Your task to perform on an android device: Clear the cart on newegg.com. Search for "razer blackwidow" on newegg.com, select the first entry, and add it to the cart. Image 0: 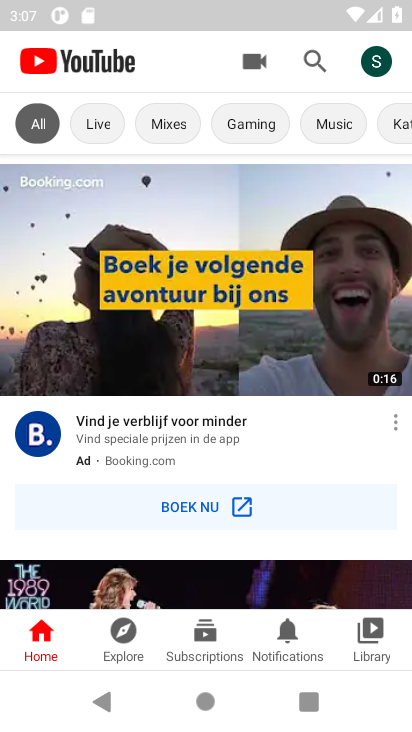
Step 0: press home button
Your task to perform on an android device: Clear the cart on newegg.com. Search for "razer blackwidow" on newegg.com, select the first entry, and add it to the cart. Image 1: 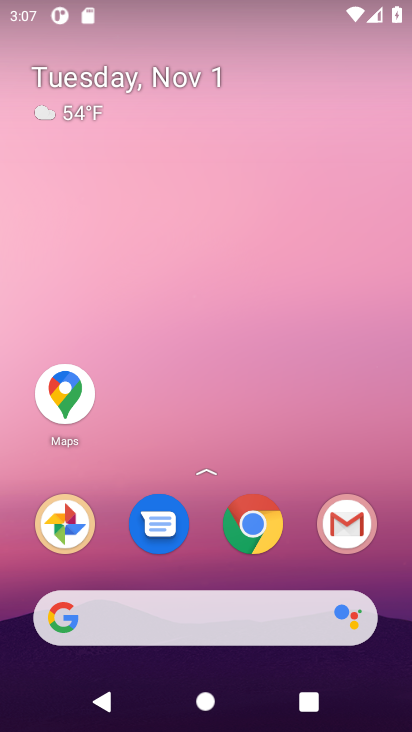
Step 1: click (252, 522)
Your task to perform on an android device: Clear the cart on newegg.com. Search for "razer blackwidow" on newegg.com, select the first entry, and add it to the cart. Image 2: 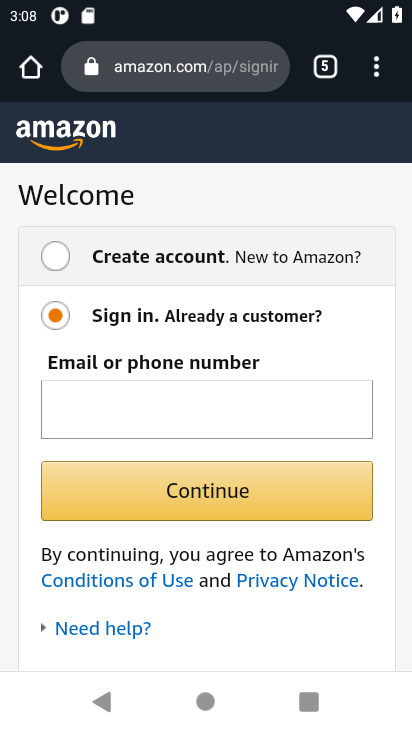
Step 2: click (213, 51)
Your task to perform on an android device: Clear the cart on newegg.com. Search for "razer blackwidow" on newegg.com, select the first entry, and add it to the cart. Image 3: 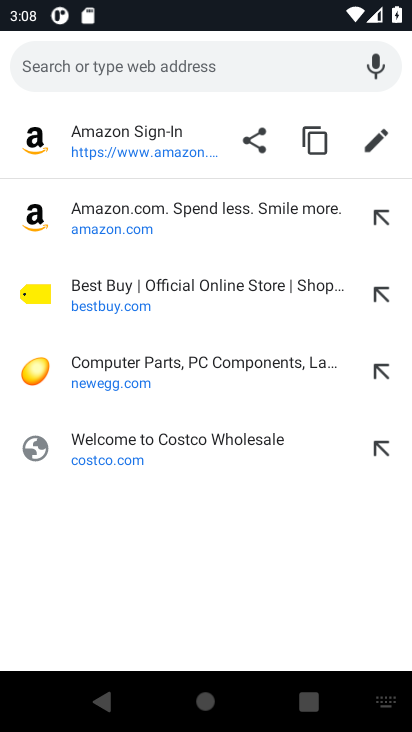
Step 3: type "newegg.com"
Your task to perform on an android device: Clear the cart on newegg.com. Search for "razer blackwidow" on newegg.com, select the first entry, and add it to the cart. Image 4: 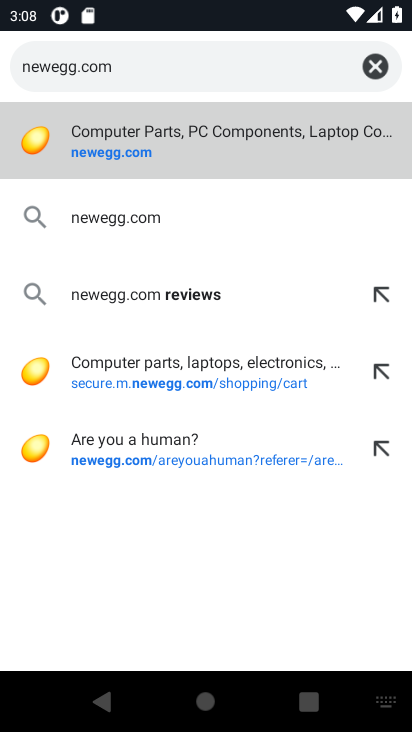
Step 4: click (102, 137)
Your task to perform on an android device: Clear the cart on newegg.com. Search for "razer blackwidow" on newegg.com, select the first entry, and add it to the cart. Image 5: 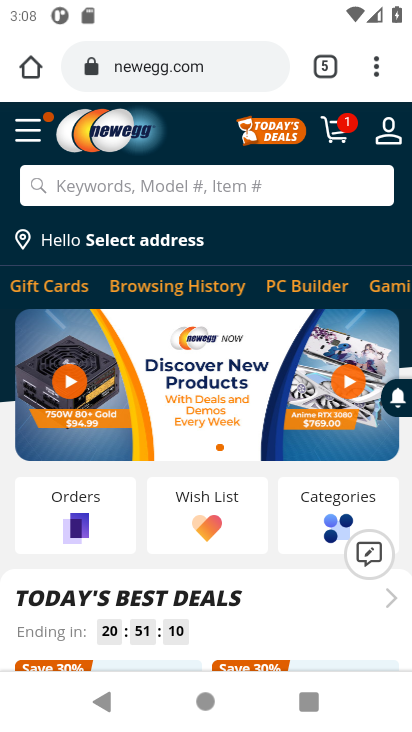
Step 5: click (338, 125)
Your task to perform on an android device: Clear the cart on newegg.com. Search for "razer blackwidow" on newegg.com, select the first entry, and add it to the cart. Image 6: 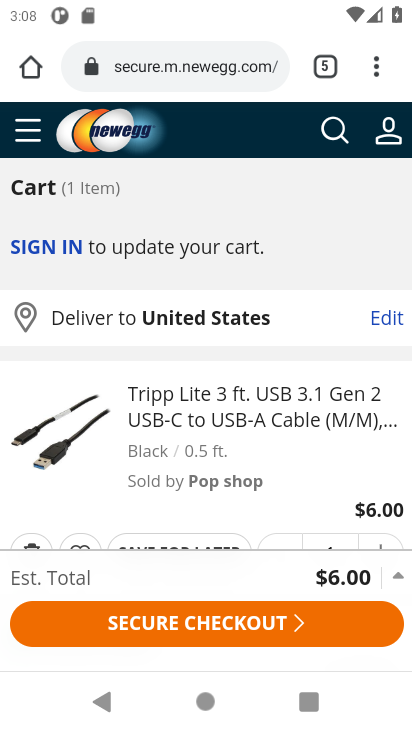
Step 6: drag from (258, 507) to (239, 212)
Your task to perform on an android device: Clear the cart on newegg.com. Search for "razer blackwidow" on newegg.com, select the first entry, and add it to the cart. Image 7: 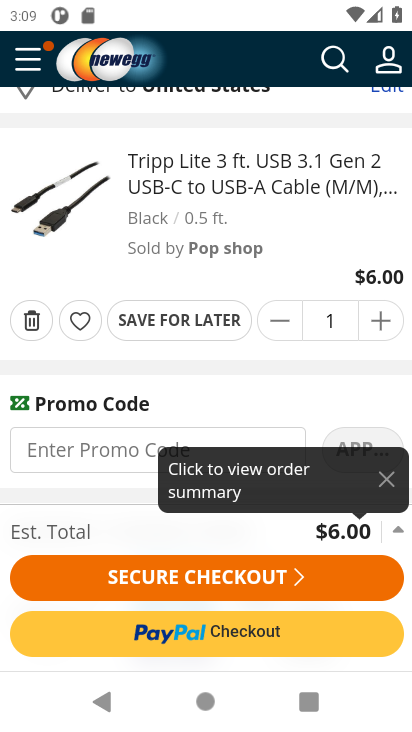
Step 7: click (33, 319)
Your task to perform on an android device: Clear the cart on newegg.com. Search for "razer blackwidow" on newegg.com, select the first entry, and add it to the cart. Image 8: 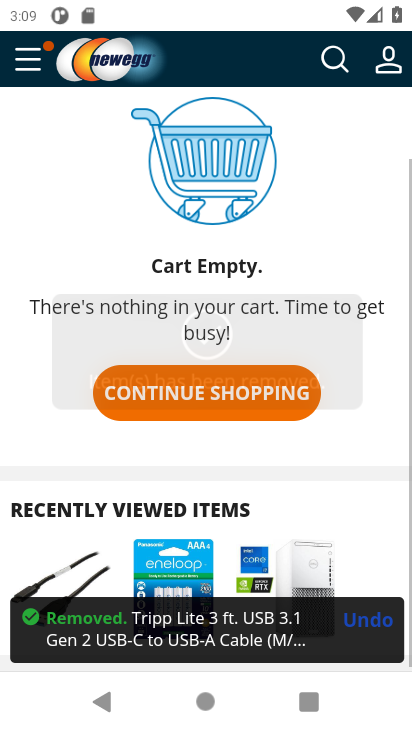
Step 8: click (199, 559)
Your task to perform on an android device: Clear the cart on newegg.com. Search for "razer blackwidow" on newegg.com, select the first entry, and add it to the cart. Image 9: 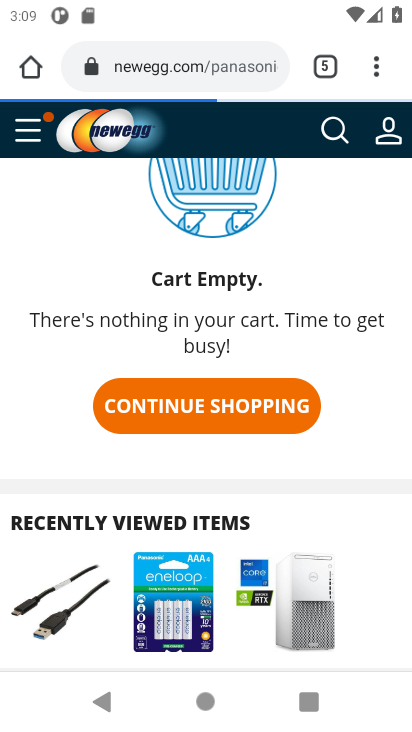
Step 9: click (175, 405)
Your task to perform on an android device: Clear the cart on newegg.com. Search for "razer blackwidow" on newegg.com, select the first entry, and add it to the cart. Image 10: 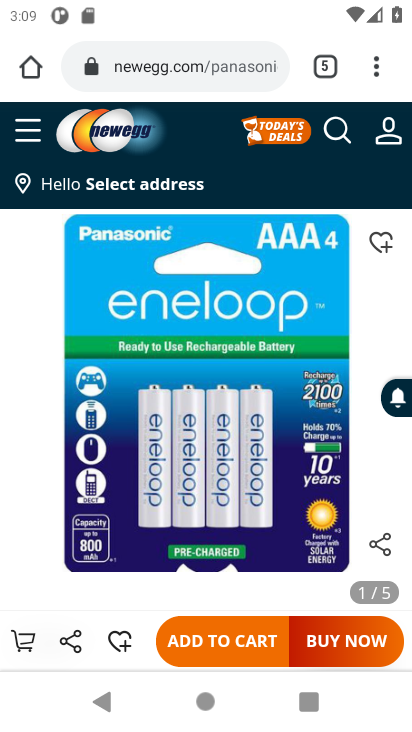
Step 10: click (339, 125)
Your task to perform on an android device: Clear the cart on newegg.com. Search for "razer blackwidow" on newegg.com, select the first entry, and add it to the cart. Image 11: 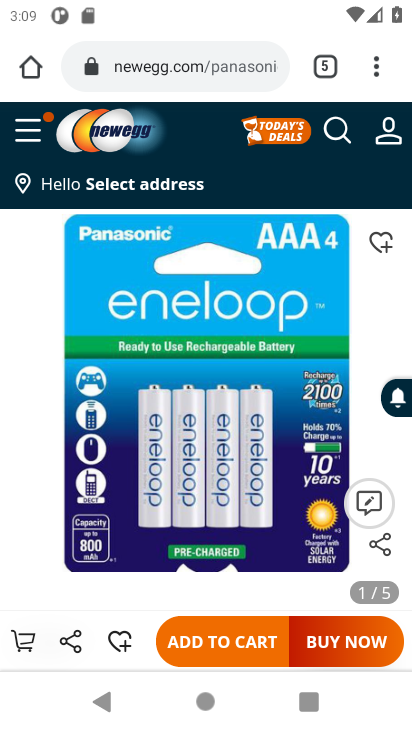
Step 11: click (333, 130)
Your task to perform on an android device: Clear the cart on newegg.com. Search for "razer blackwidow" on newegg.com, select the first entry, and add it to the cart. Image 12: 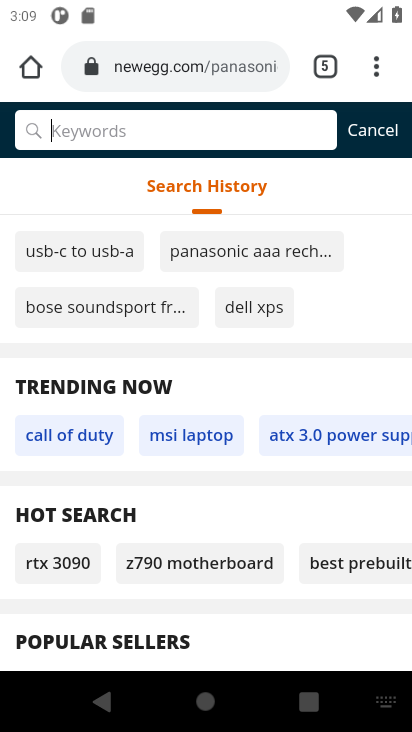
Step 12: type "razer blackwidow"
Your task to perform on an android device: Clear the cart on newegg.com. Search for "razer blackwidow" on newegg.com, select the first entry, and add it to the cart. Image 13: 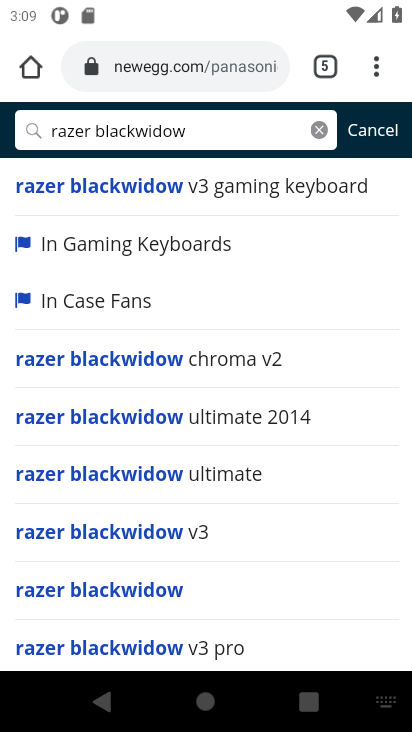
Step 13: click (75, 191)
Your task to perform on an android device: Clear the cart on newegg.com. Search for "razer blackwidow" on newegg.com, select the first entry, and add it to the cart. Image 14: 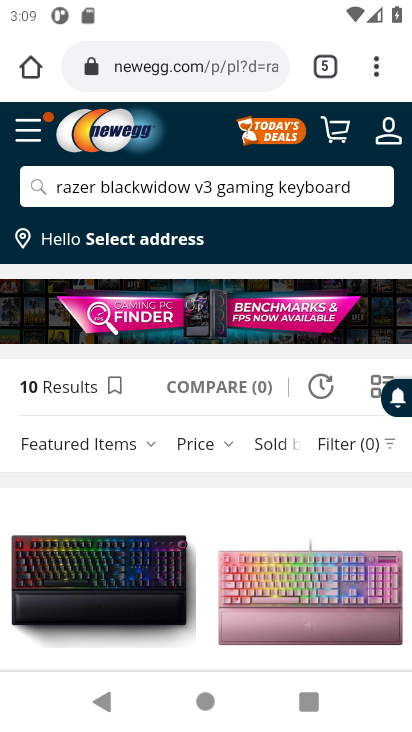
Step 14: drag from (210, 540) to (189, 277)
Your task to perform on an android device: Clear the cart on newegg.com. Search for "razer blackwidow" on newegg.com, select the first entry, and add it to the cart. Image 15: 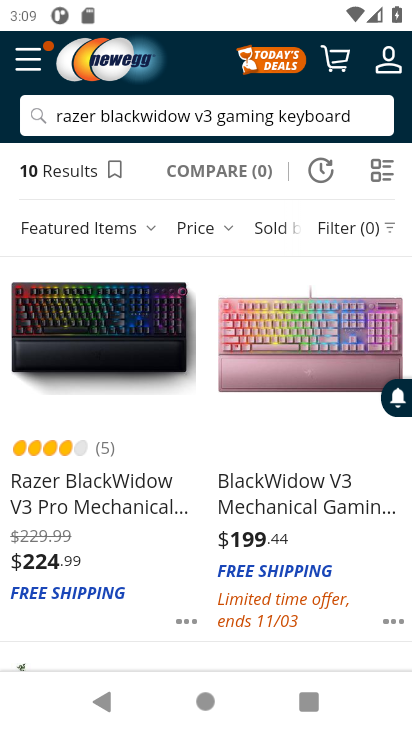
Step 15: click (63, 480)
Your task to perform on an android device: Clear the cart on newegg.com. Search for "razer blackwidow" on newegg.com, select the first entry, and add it to the cart. Image 16: 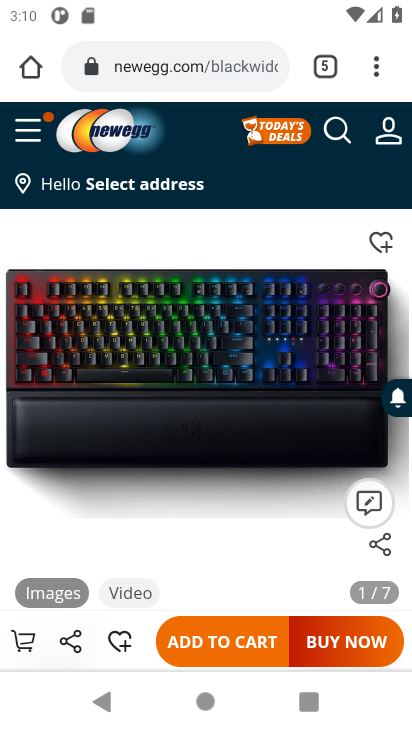
Step 16: click (222, 640)
Your task to perform on an android device: Clear the cart on newegg.com. Search for "razer blackwidow" on newegg.com, select the first entry, and add it to the cart. Image 17: 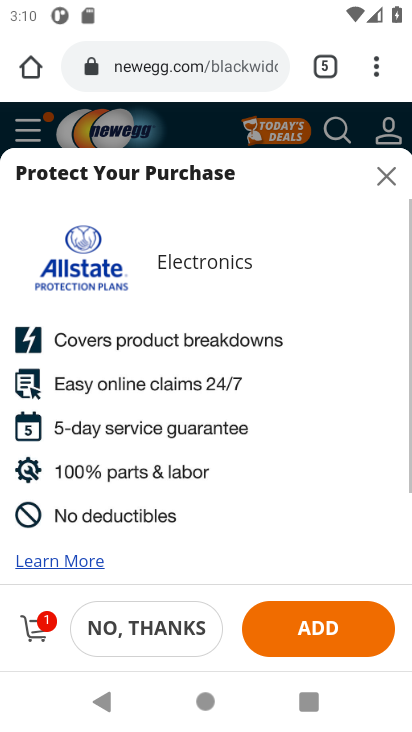
Step 17: click (135, 635)
Your task to perform on an android device: Clear the cart on newegg.com. Search for "razer blackwidow" on newegg.com, select the first entry, and add it to the cart. Image 18: 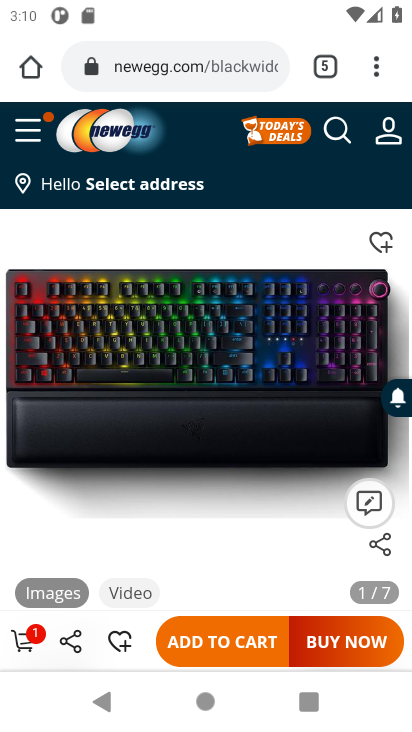
Step 18: task complete